Your task to perform on an android device: When is my next meeting? Image 0: 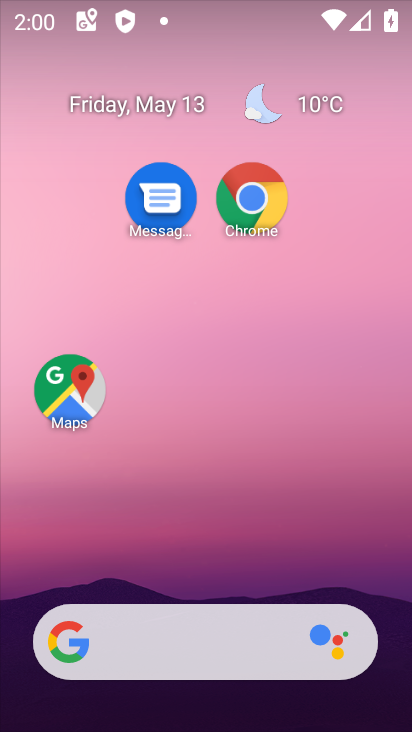
Step 0: drag from (208, 610) to (151, 4)
Your task to perform on an android device: When is my next meeting? Image 1: 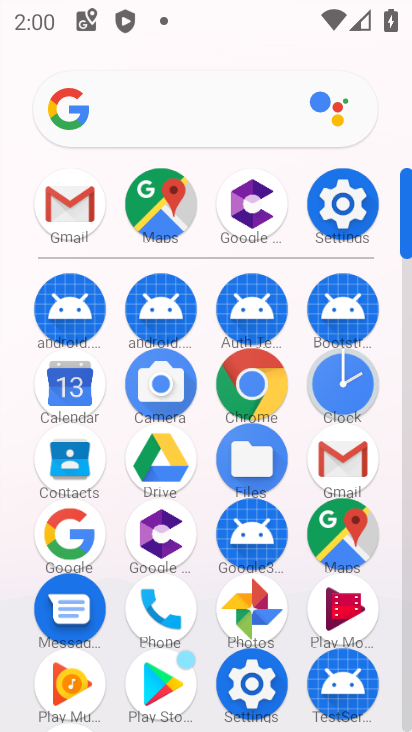
Step 1: click (58, 390)
Your task to perform on an android device: When is my next meeting? Image 2: 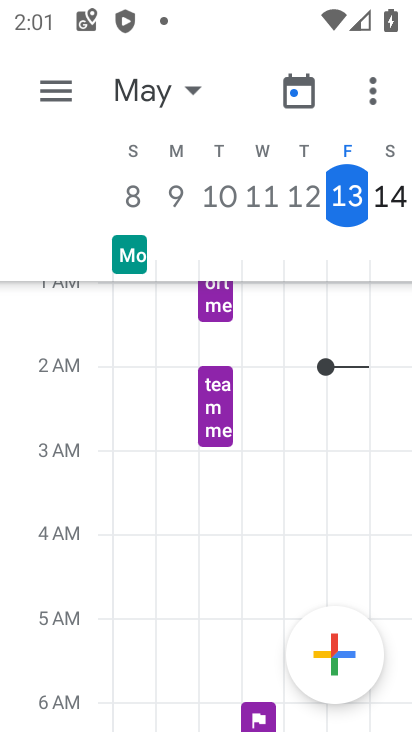
Step 2: task complete